Your task to perform on an android device: make emails show in primary in the gmail app Image 0: 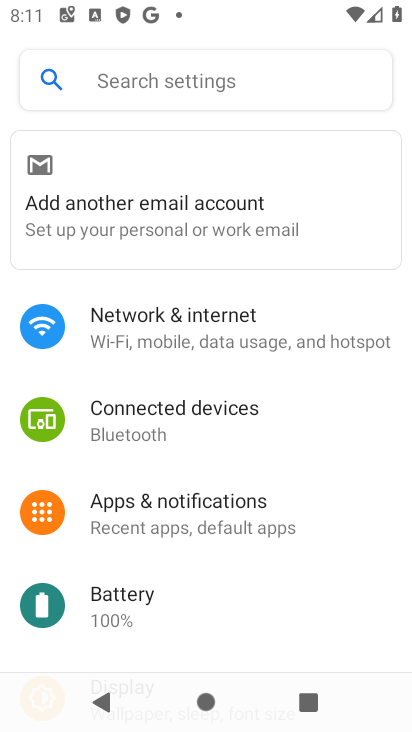
Step 0: press home button
Your task to perform on an android device: make emails show in primary in the gmail app Image 1: 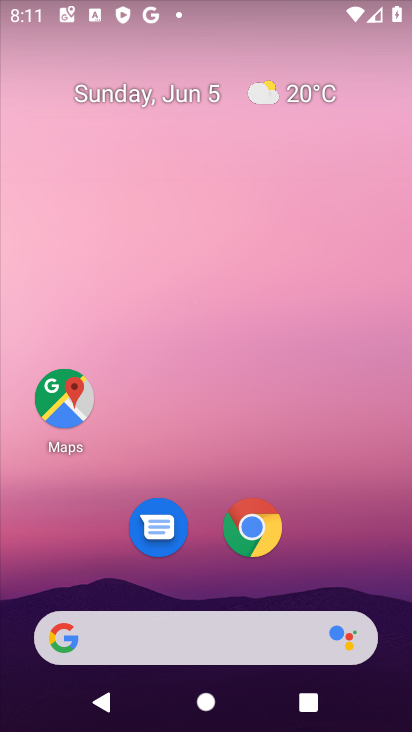
Step 1: drag from (177, 569) to (198, 189)
Your task to perform on an android device: make emails show in primary in the gmail app Image 2: 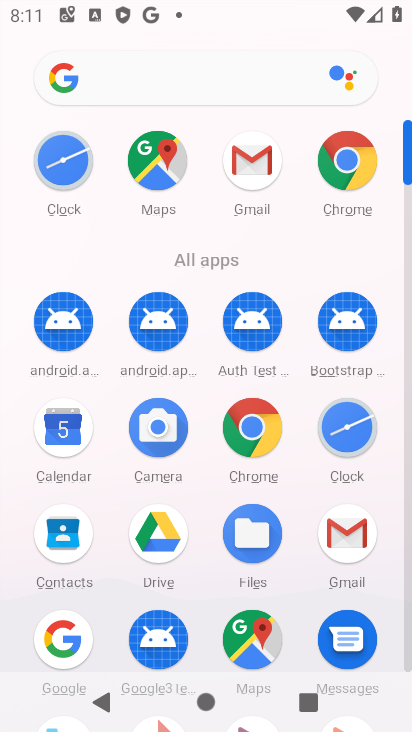
Step 2: click (362, 563)
Your task to perform on an android device: make emails show in primary in the gmail app Image 3: 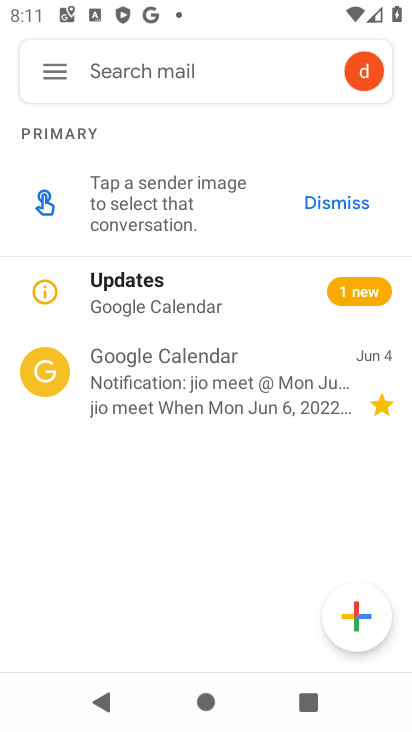
Step 3: click (63, 65)
Your task to perform on an android device: make emails show in primary in the gmail app Image 4: 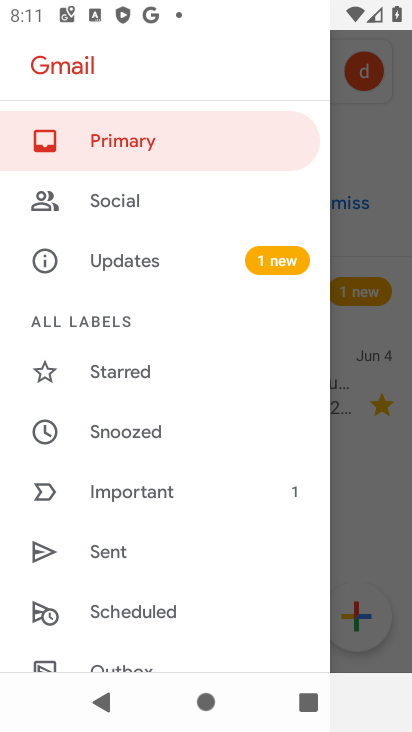
Step 4: click (146, 133)
Your task to perform on an android device: make emails show in primary in the gmail app Image 5: 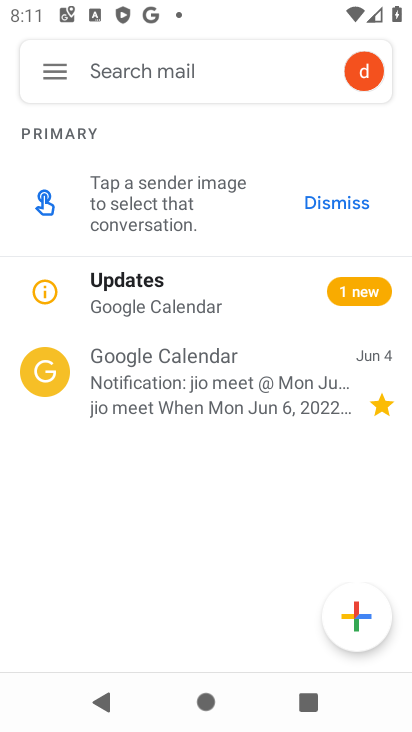
Step 5: task complete